Your task to perform on an android device: Go to Google Image 0: 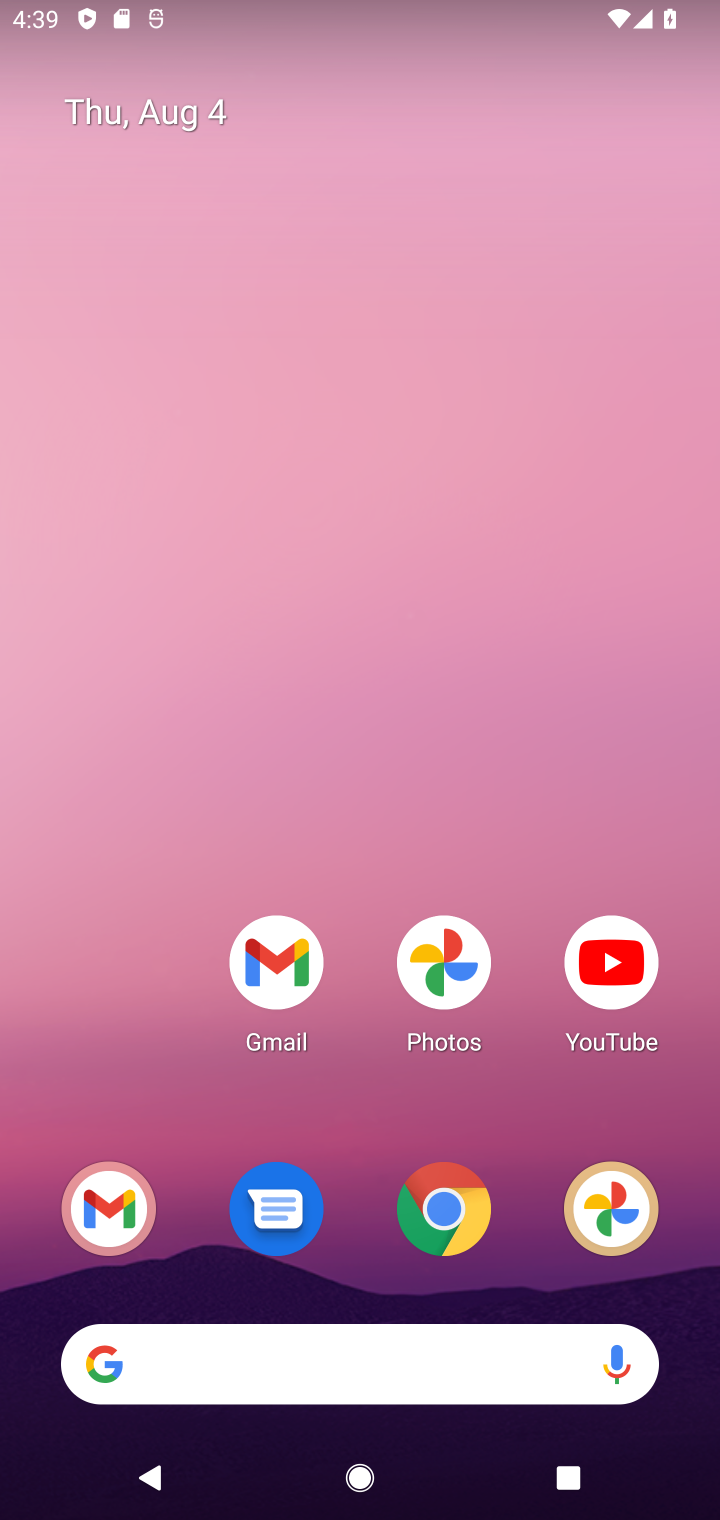
Step 0: click (316, 1365)
Your task to perform on an android device: Go to Google Image 1: 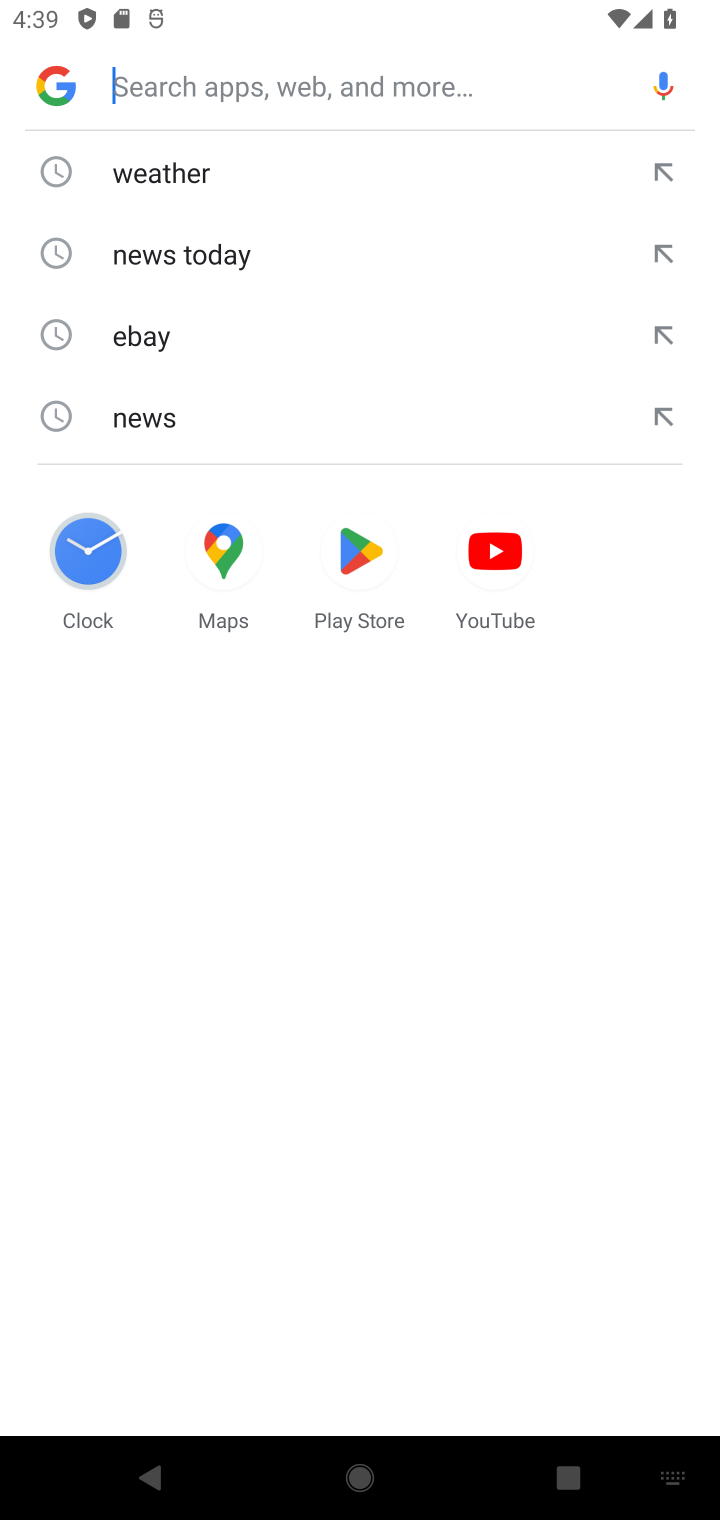
Step 1: task complete